Your task to perform on an android device: open the mobile data screen to see how much data has been used Image 0: 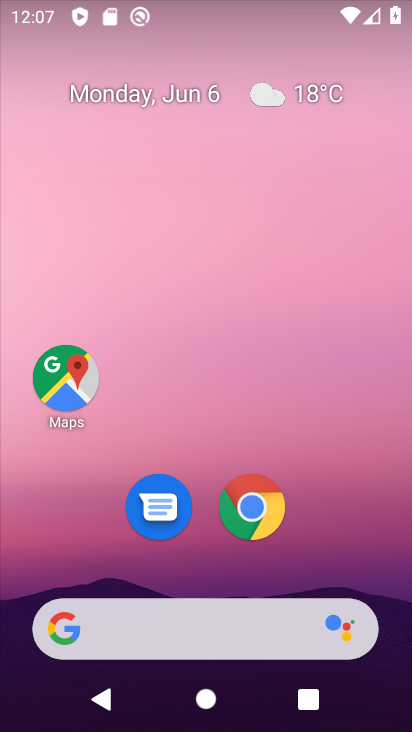
Step 0: drag from (211, 468) to (249, 261)
Your task to perform on an android device: open the mobile data screen to see how much data has been used Image 1: 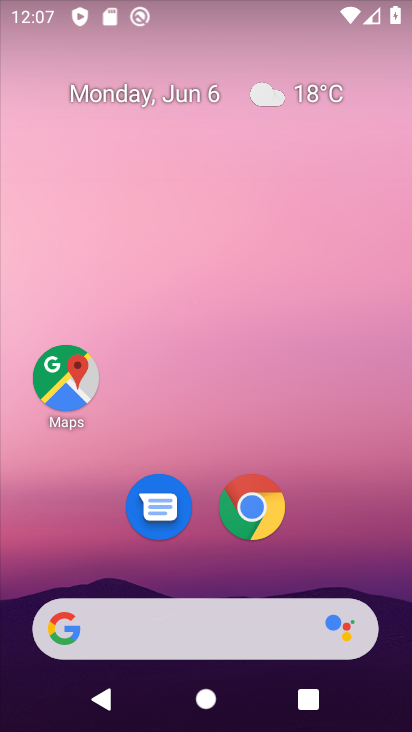
Step 1: drag from (189, 572) to (277, 153)
Your task to perform on an android device: open the mobile data screen to see how much data has been used Image 2: 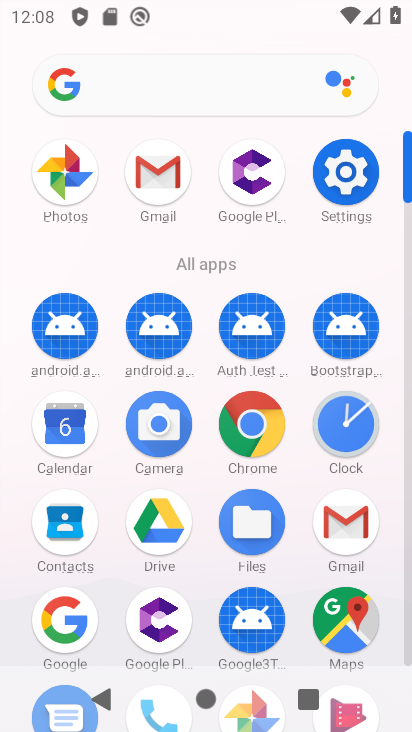
Step 2: click (342, 180)
Your task to perform on an android device: open the mobile data screen to see how much data has been used Image 3: 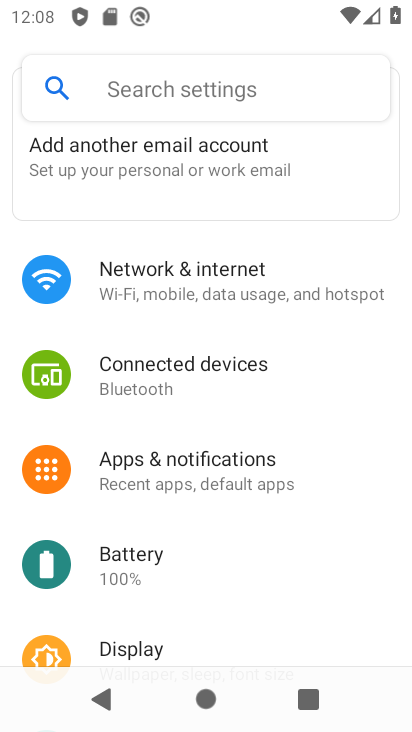
Step 3: click (149, 291)
Your task to perform on an android device: open the mobile data screen to see how much data has been used Image 4: 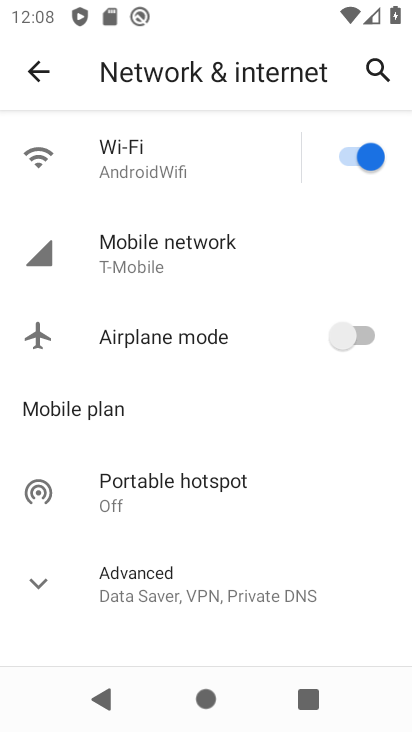
Step 4: click (187, 276)
Your task to perform on an android device: open the mobile data screen to see how much data has been used Image 5: 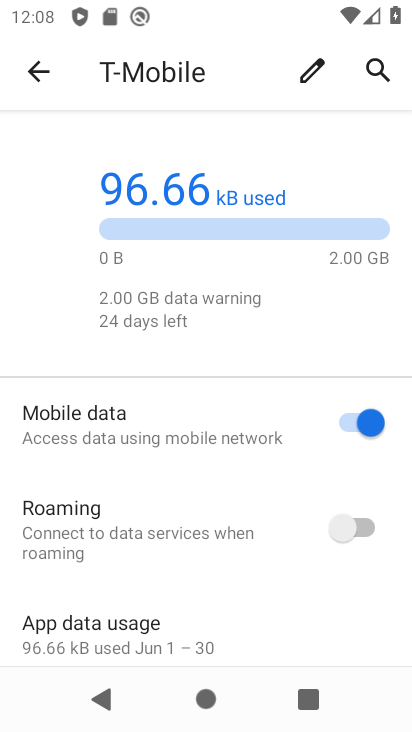
Step 5: task complete